Your task to perform on an android device: Go to accessibility settings Image 0: 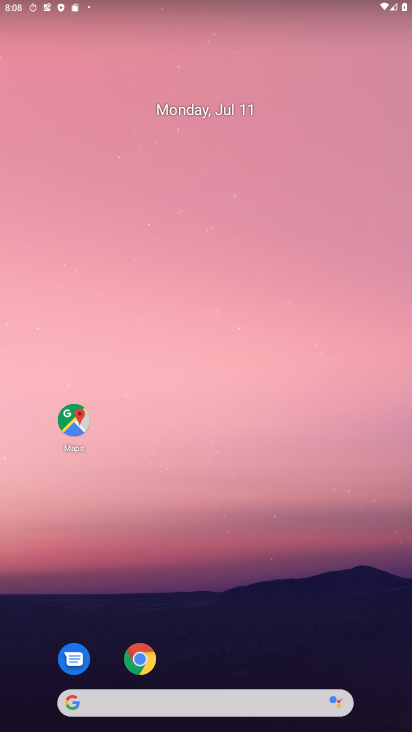
Step 0: drag from (284, 561) to (241, 44)
Your task to perform on an android device: Go to accessibility settings Image 1: 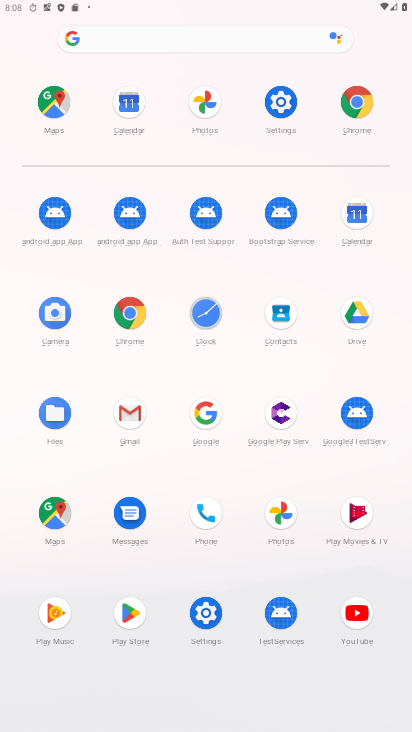
Step 1: click (287, 109)
Your task to perform on an android device: Go to accessibility settings Image 2: 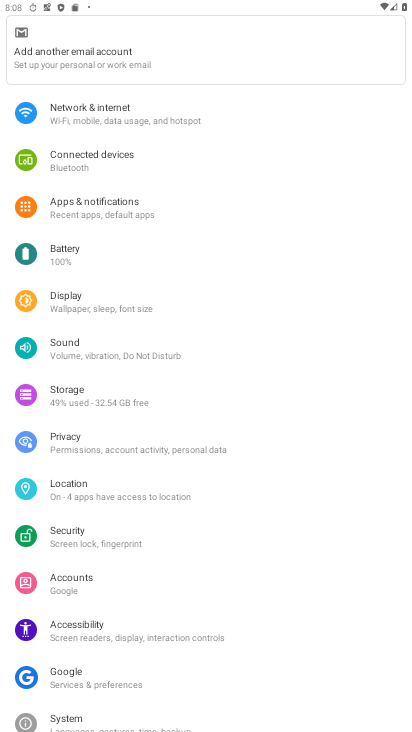
Step 2: click (74, 621)
Your task to perform on an android device: Go to accessibility settings Image 3: 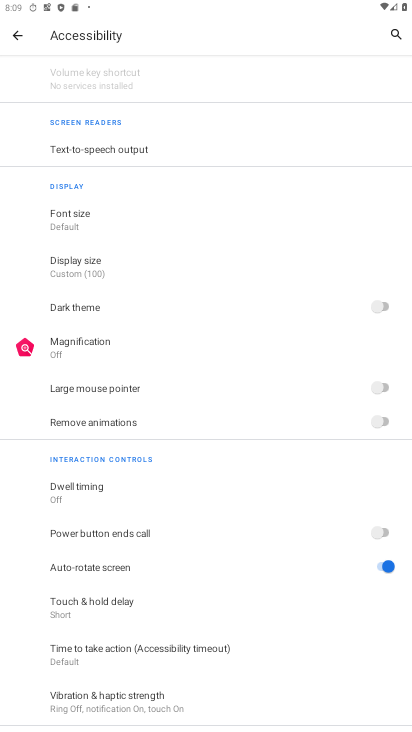
Step 3: task complete